Your task to perform on an android device: toggle location history Image 0: 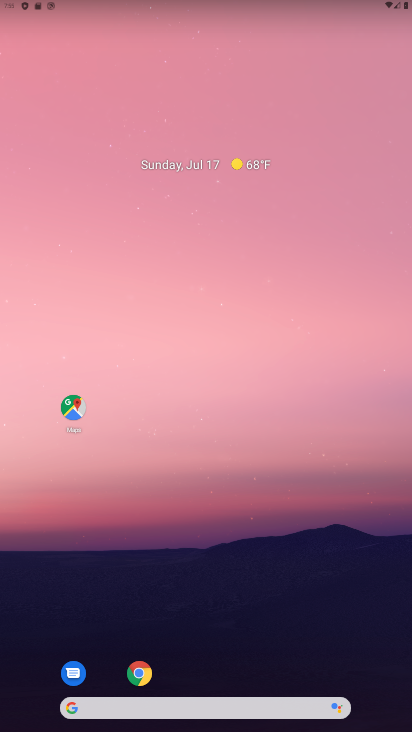
Step 0: drag from (316, 644) to (194, 115)
Your task to perform on an android device: toggle location history Image 1: 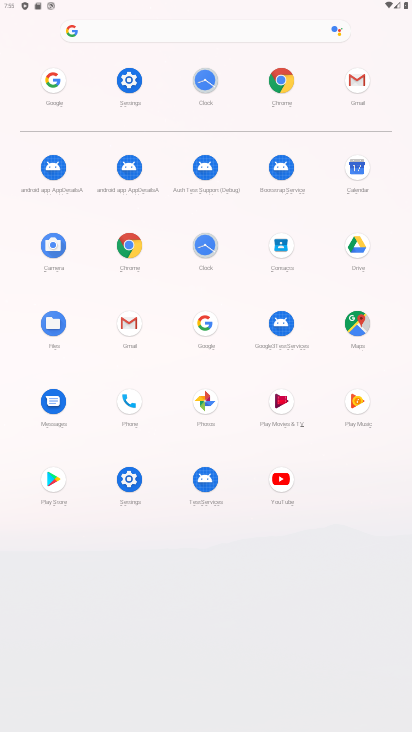
Step 1: click (126, 81)
Your task to perform on an android device: toggle location history Image 2: 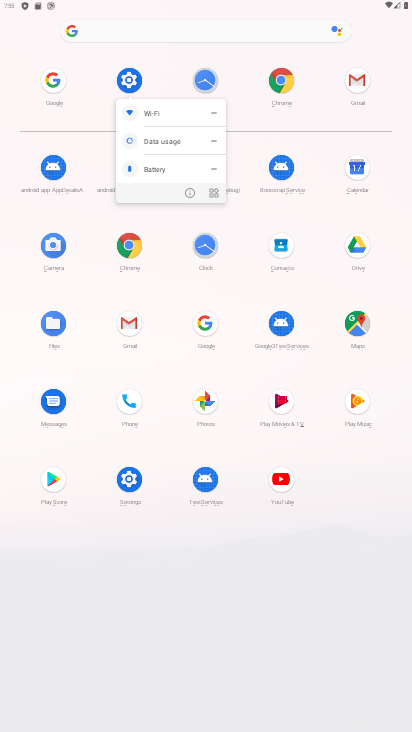
Step 2: click (138, 76)
Your task to perform on an android device: toggle location history Image 3: 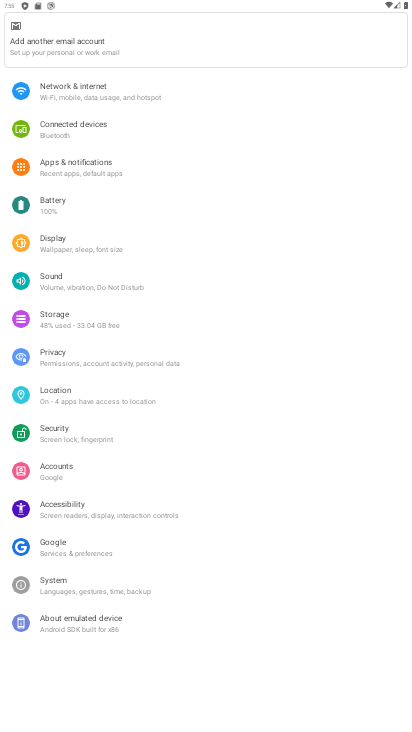
Step 3: click (67, 393)
Your task to perform on an android device: toggle location history Image 4: 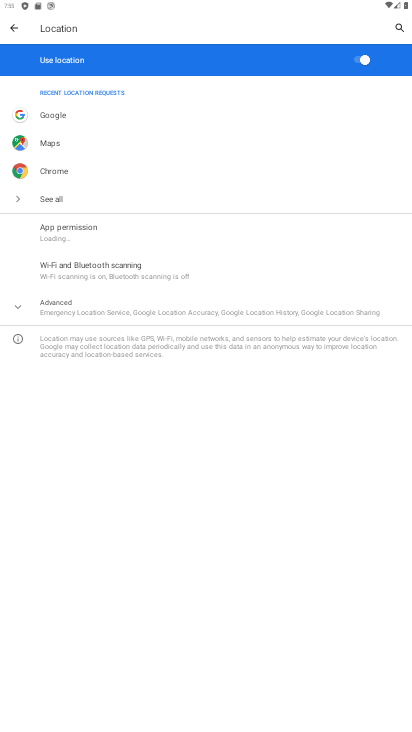
Step 4: click (78, 308)
Your task to perform on an android device: toggle location history Image 5: 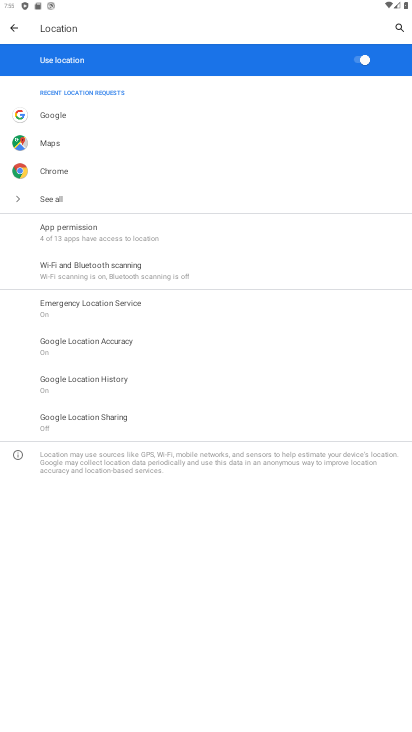
Step 5: click (108, 383)
Your task to perform on an android device: toggle location history Image 6: 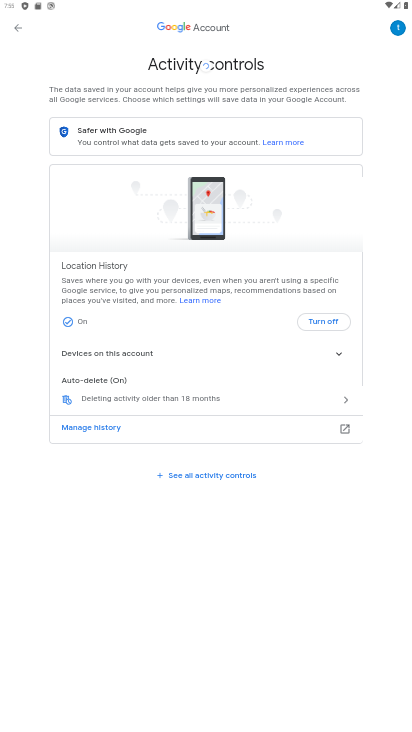
Step 6: click (321, 317)
Your task to perform on an android device: toggle location history Image 7: 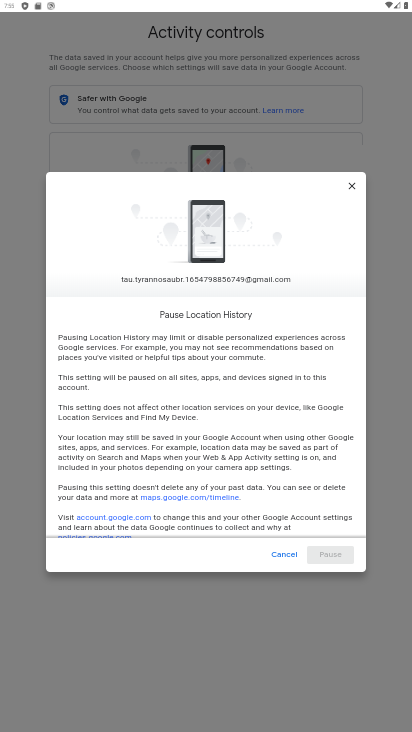
Step 7: drag from (258, 505) to (211, 104)
Your task to perform on an android device: toggle location history Image 8: 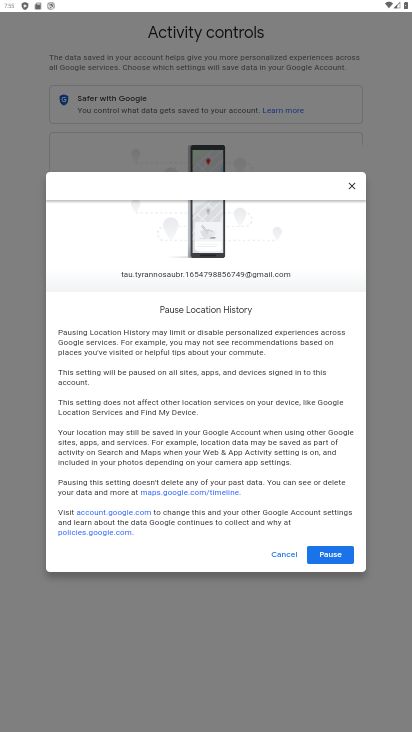
Step 8: click (325, 546)
Your task to perform on an android device: toggle location history Image 9: 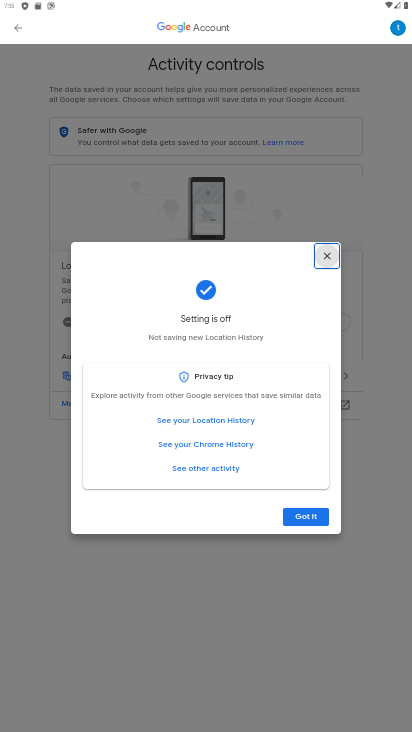
Step 9: click (303, 516)
Your task to perform on an android device: toggle location history Image 10: 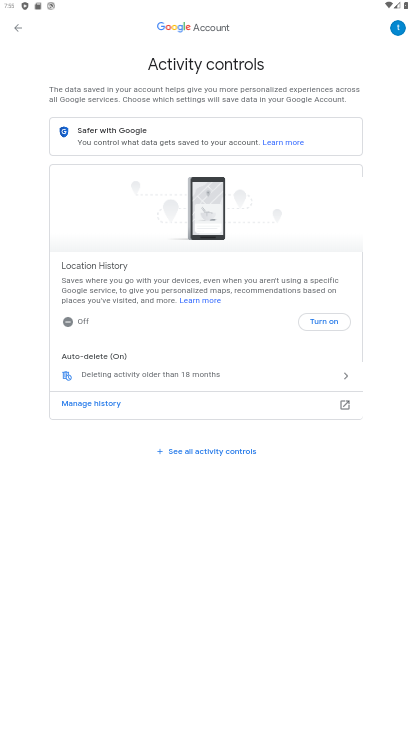
Step 10: task complete